Your task to perform on an android device: toggle notification dots Image 0: 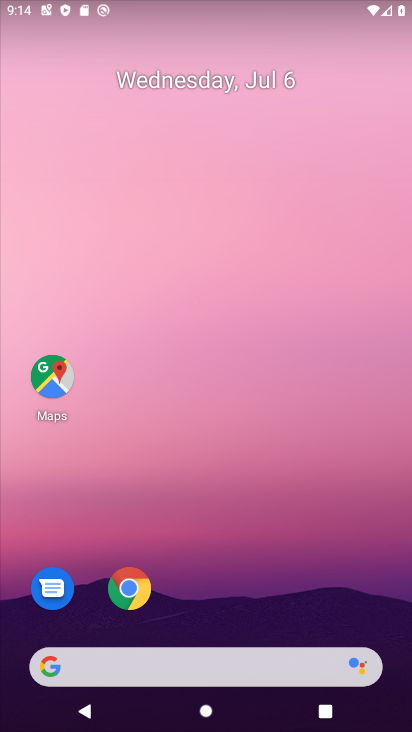
Step 0: drag from (193, 633) to (335, 17)
Your task to perform on an android device: toggle notification dots Image 1: 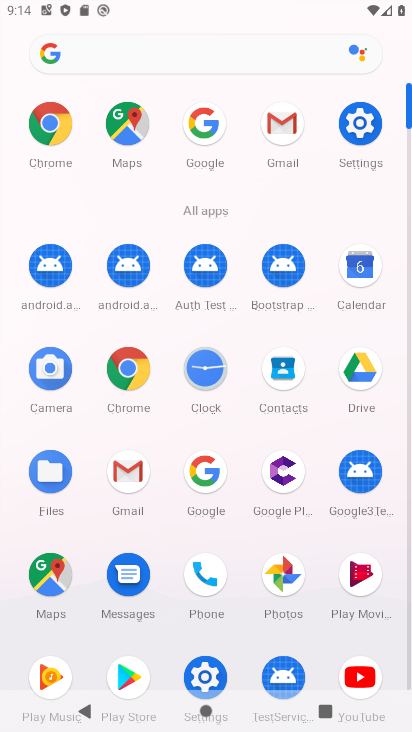
Step 1: click (366, 122)
Your task to perform on an android device: toggle notification dots Image 2: 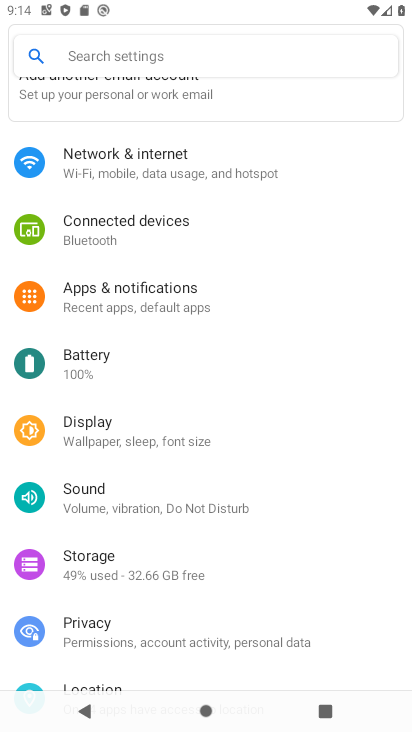
Step 2: click (140, 294)
Your task to perform on an android device: toggle notification dots Image 3: 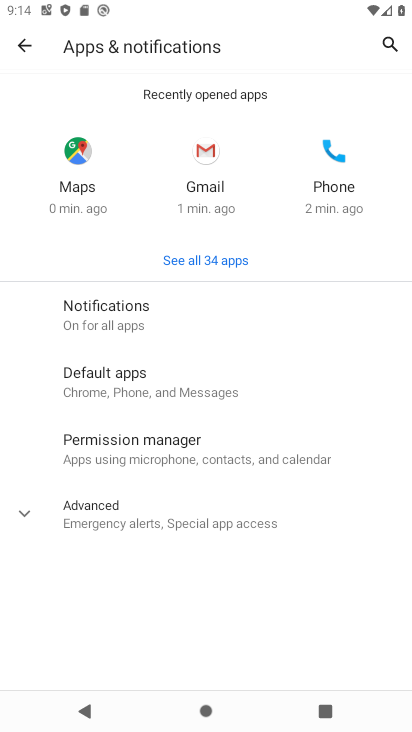
Step 3: click (115, 319)
Your task to perform on an android device: toggle notification dots Image 4: 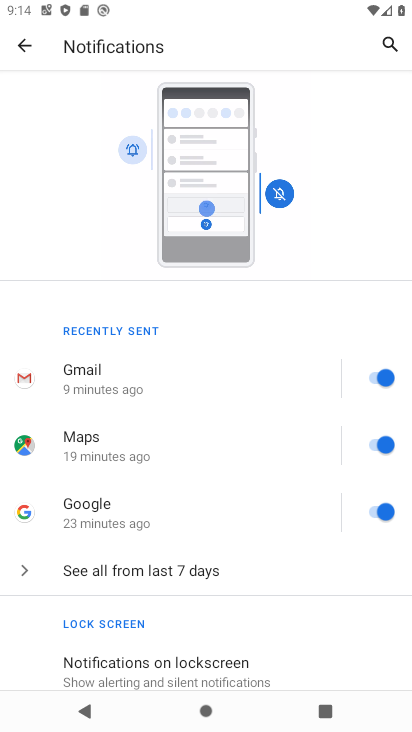
Step 4: drag from (179, 563) to (224, 300)
Your task to perform on an android device: toggle notification dots Image 5: 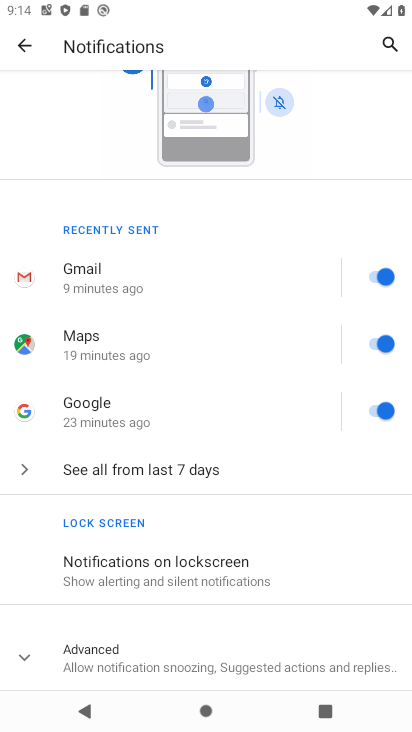
Step 5: click (165, 648)
Your task to perform on an android device: toggle notification dots Image 6: 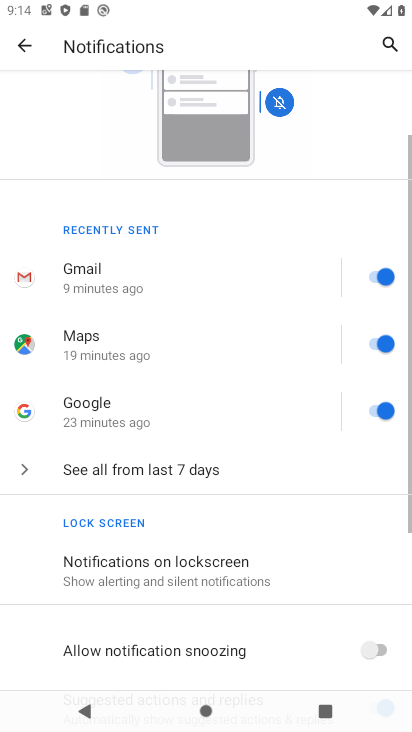
Step 6: drag from (205, 593) to (252, 179)
Your task to perform on an android device: toggle notification dots Image 7: 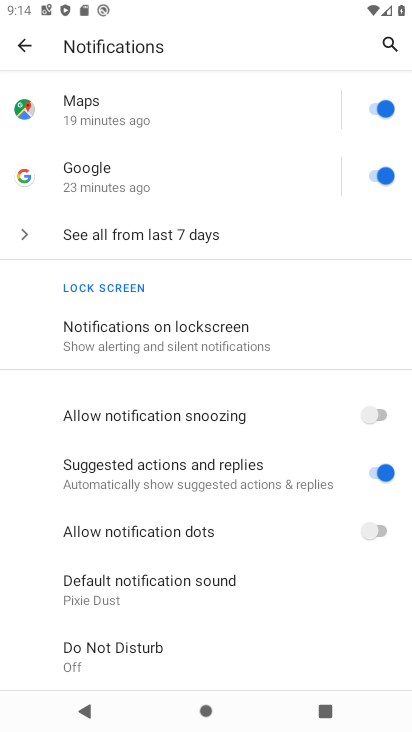
Step 7: click (383, 532)
Your task to perform on an android device: toggle notification dots Image 8: 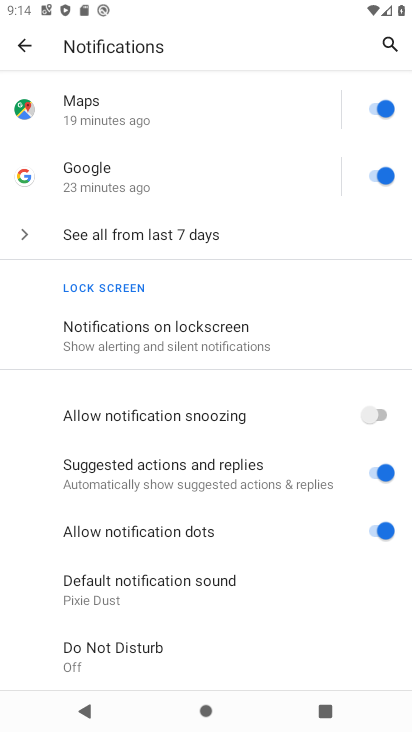
Step 8: task complete